Your task to perform on an android device: turn on wifi Image 0: 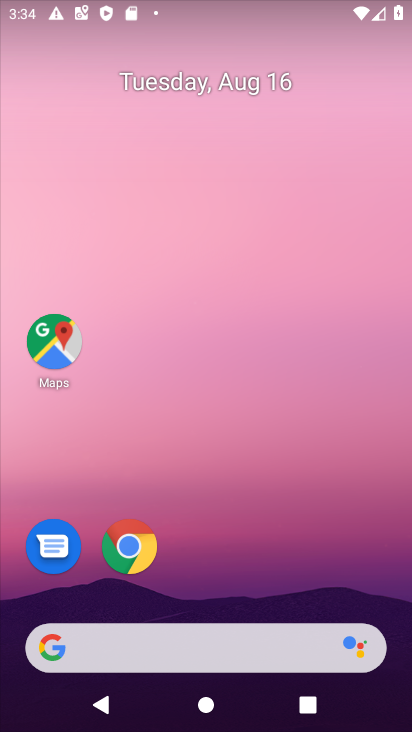
Step 0: press home button
Your task to perform on an android device: turn on wifi Image 1: 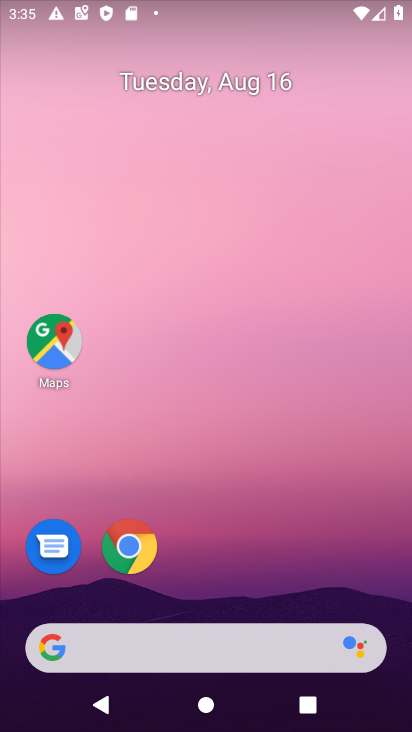
Step 1: drag from (353, 486) to (355, 123)
Your task to perform on an android device: turn on wifi Image 2: 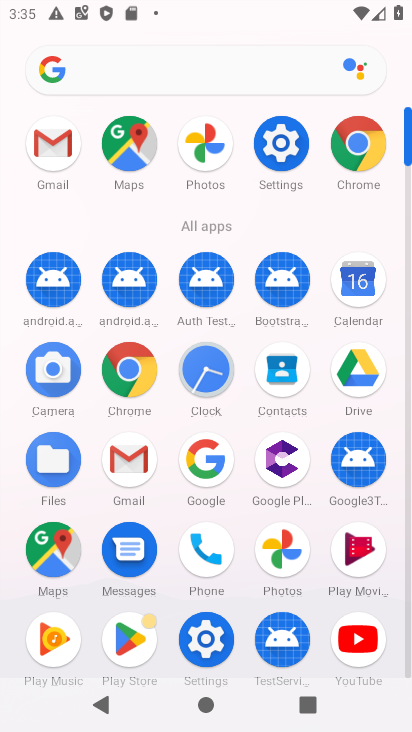
Step 2: click (283, 144)
Your task to perform on an android device: turn on wifi Image 3: 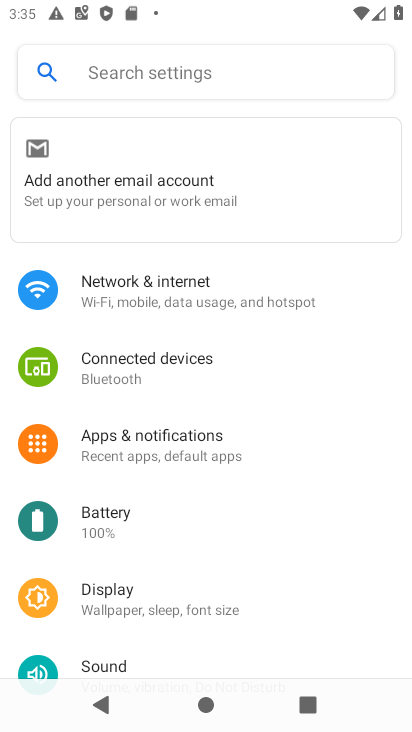
Step 3: drag from (339, 448) to (361, 360)
Your task to perform on an android device: turn on wifi Image 4: 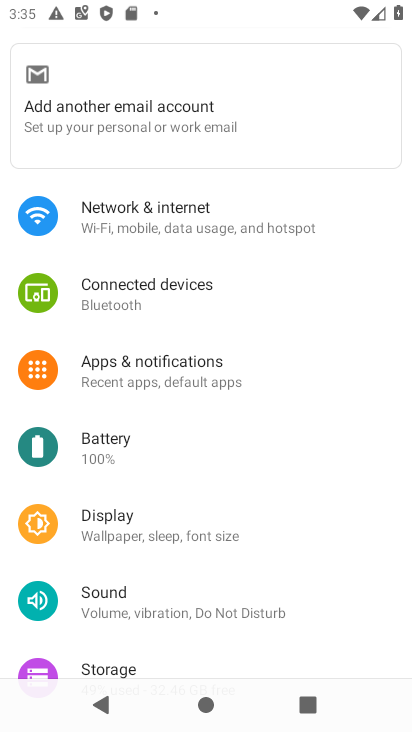
Step 4: drag from (335, 470) to (353, 305)
Your task to perform on an android device: turn on wifi Image 5: 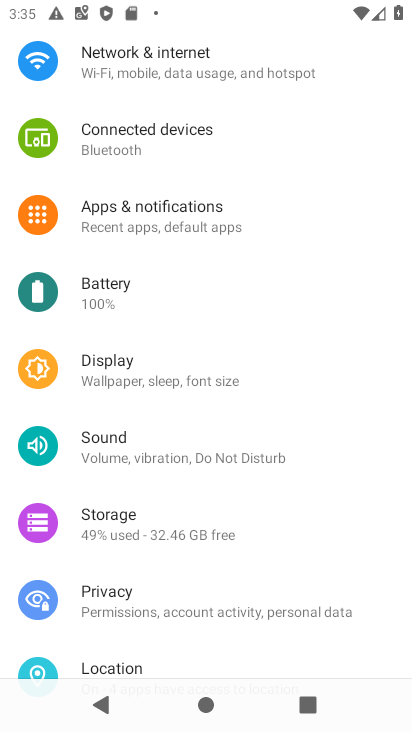
Step 5: drag from (339, 481) to (349, 284)
Your task to perform on an android device: turn on wifi Image 6: 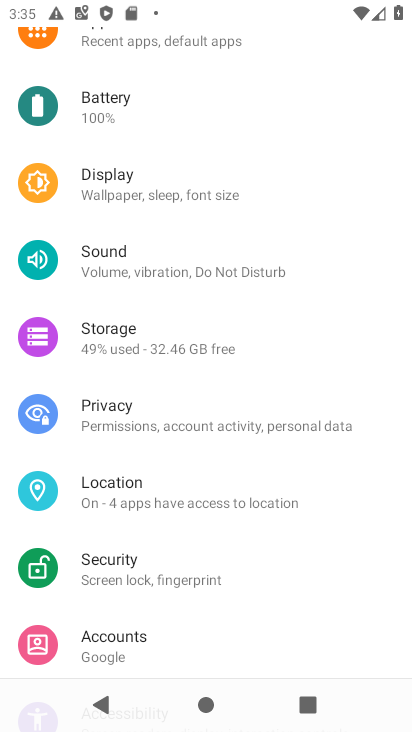
Step 6: drag from (348, 458) to (350, 309)
Your task to perform on an android device: turn on wifi Image 7: 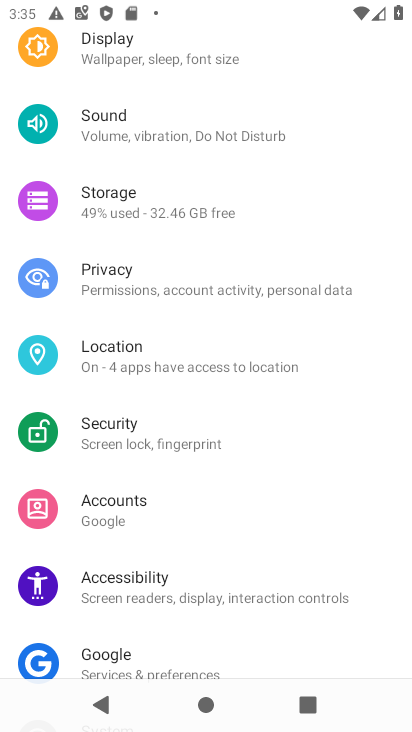
Step 7: drag from (319, 518) to (343, 319)
Your task to perform on an android device: turn on wifi Image 8: 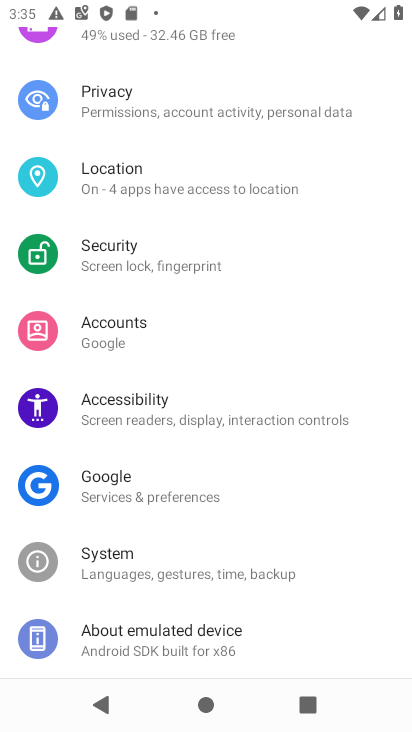
Step 8: drag from (365, 298) to (371, 424)
Your task to perform on an android device: turn on wifi Image 9: 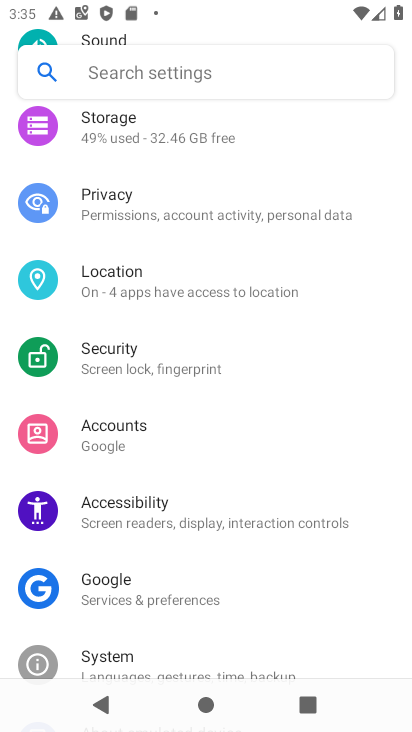
Step 9: drag from (382, 222) to (379, 378)
Your task to perform on an android device: turn on wifi Image 10: 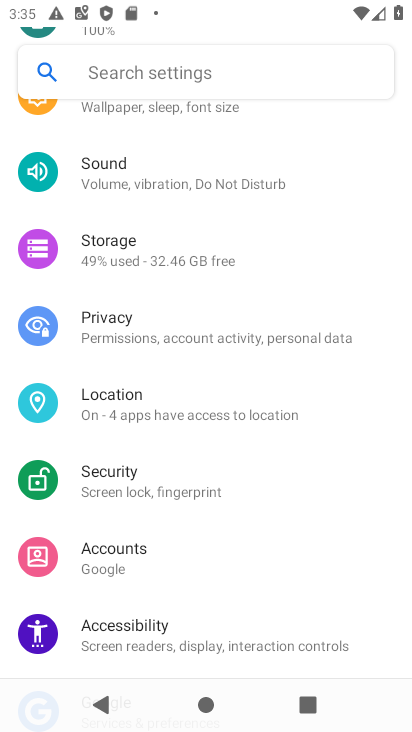
Step 10: drag from (358, 196) to (355, 374)
Your task to perform on an android device: turn on wifi Image 11: 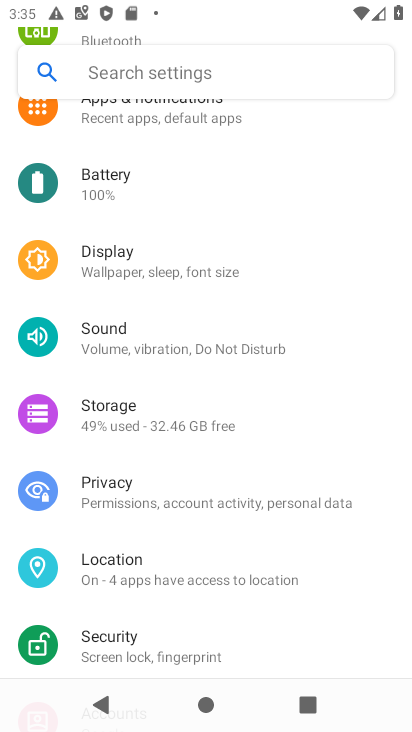
Step 11: drag from (353, 158) to (354, 386)
Your task to perform on an android device: turn on wifi Image 12: 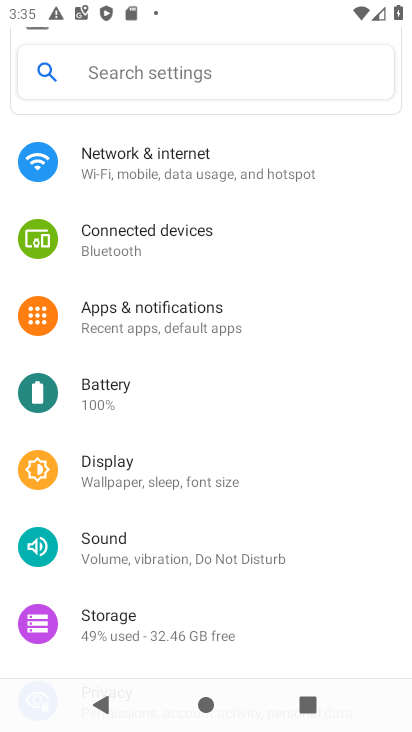
Step 12: drag from (342, 147) to (345, 384)
Your task to perform on an android device: turn on wifi Image 13: 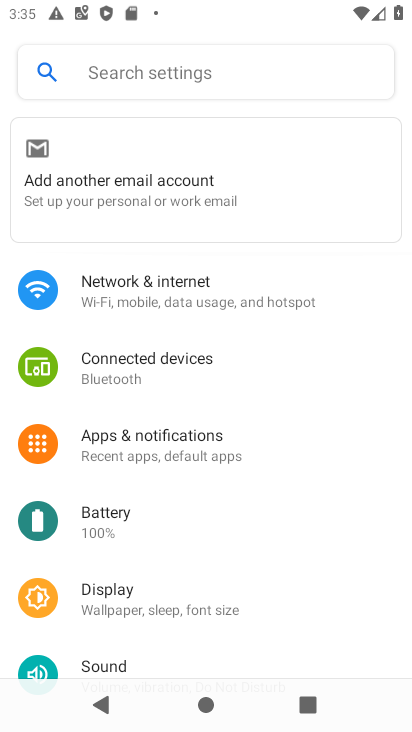
Step 13: click (240, 294)
Your task to perform on an android device: turn on wifi Image 14: 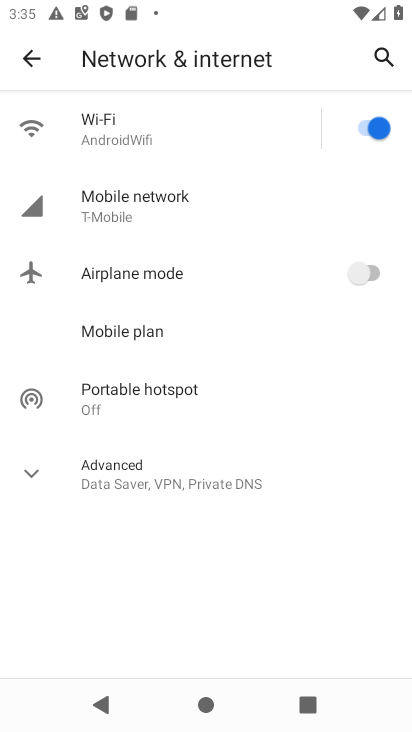
Step 14: task complete